Your task to perform on an android device: move an email to a new category in the gmail app Image 0: 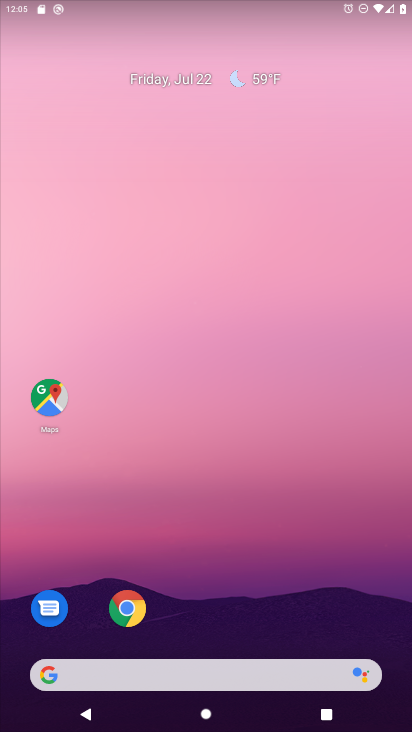
Step 0: drag from (350, 530) to (219, 40)
Your task to perform on an android device: move an email to a new category in the gmail app Image 1: 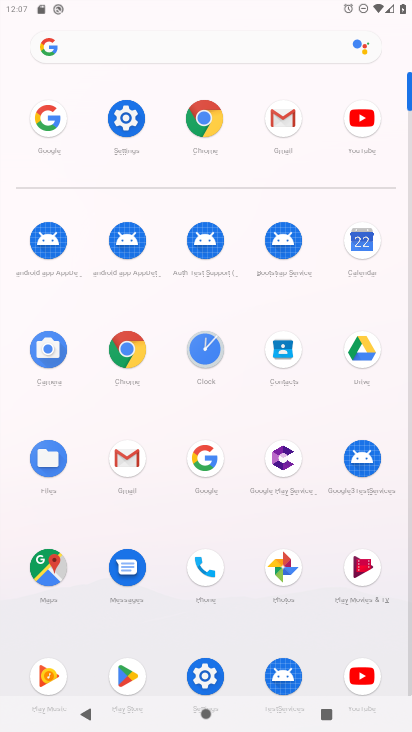
Step 1: click (132, 443)
Your task to perform on an android device: move an email to a new category in the gmail app Image 2: 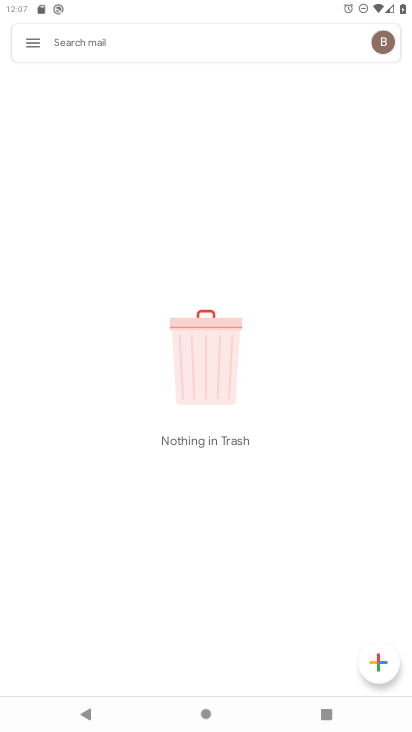
Step 2: click (30, 47)
Your task to perform on an android device: move an email to a new category in the gmail app Image 3: 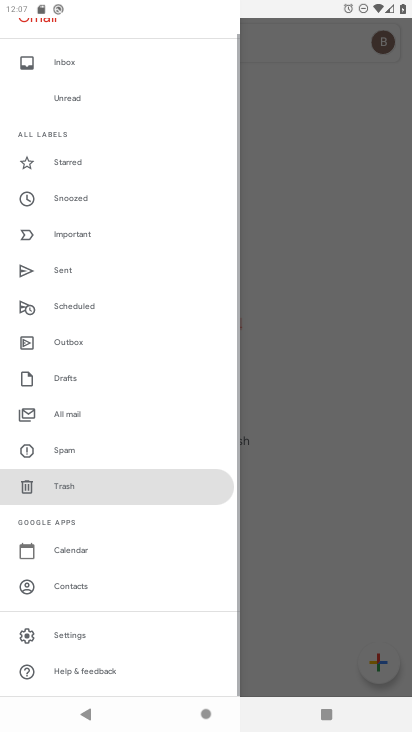
Step 3: click (43, 61)
Your task to perform on an android device: move an email to a new category in the gmail app Image 4: 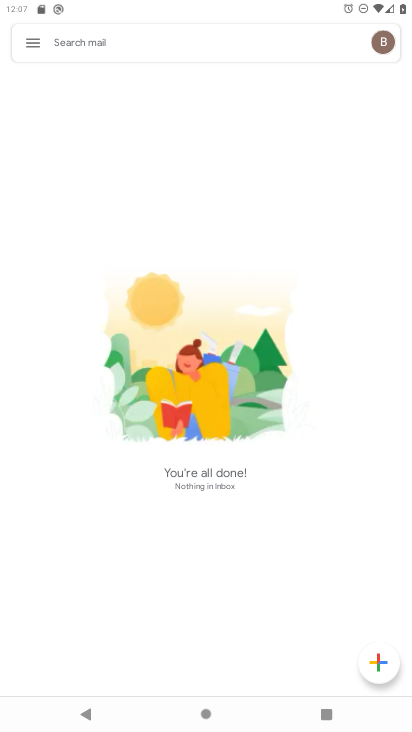
Step 4: task complete